Your task to perform on an android device: toggle wifi Image 0: 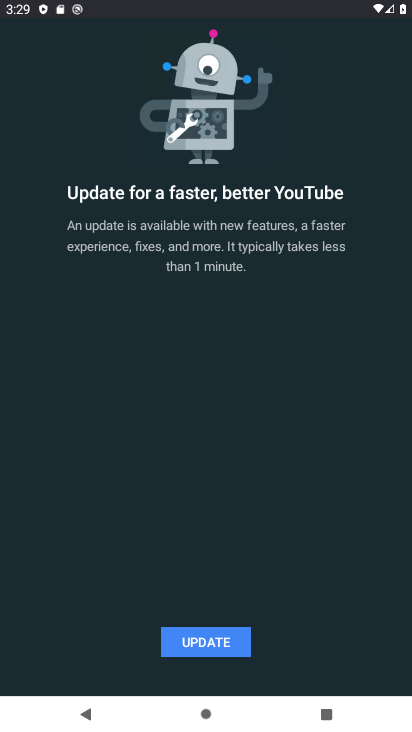
Step 0: press back button
Your task to perform on an android device: toggle wifi Image 1: 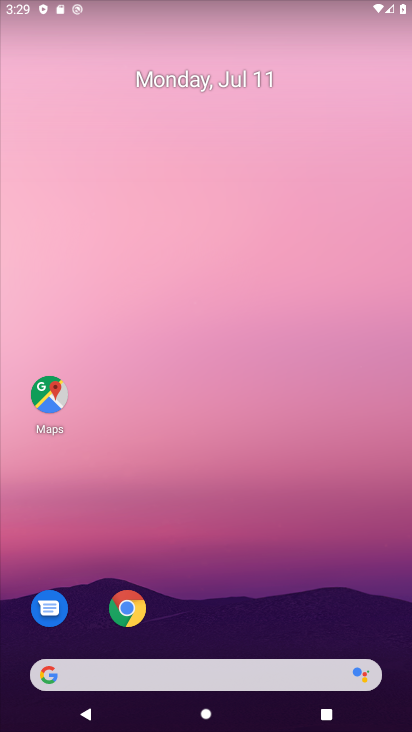
Step 1: drag from (218, 646) to (232, 6)
Your task to perform on an android device: toggle wifi Image 2: 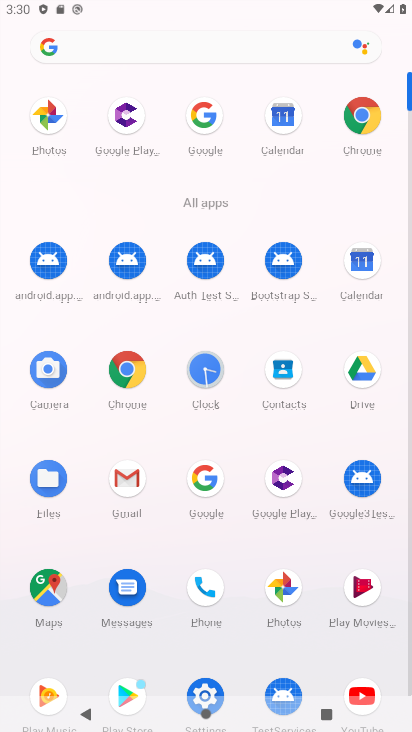
Step 2: click (202, 682)
Your task to perform on an android device: toggle wifi Image 3: 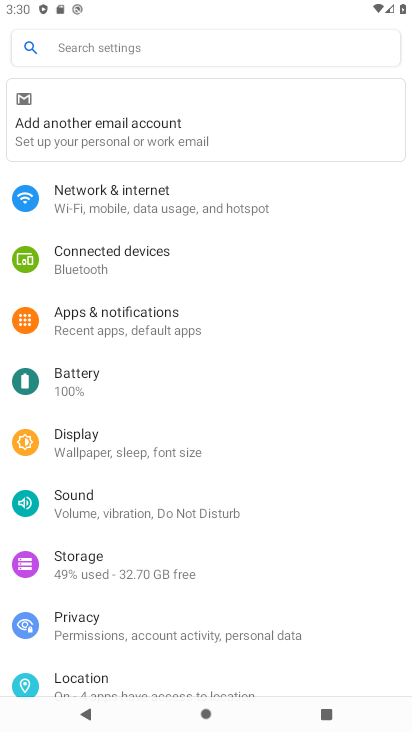
Step 3: click (144, 215)
Your task to perform on an android device: toggle wifi Image 4: 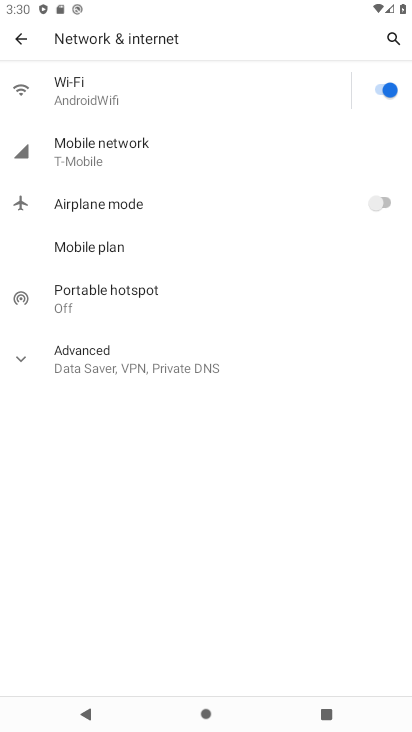
Step 4: click (388, 89)
Your task to perform on an android device: toggle wifi Image 5: 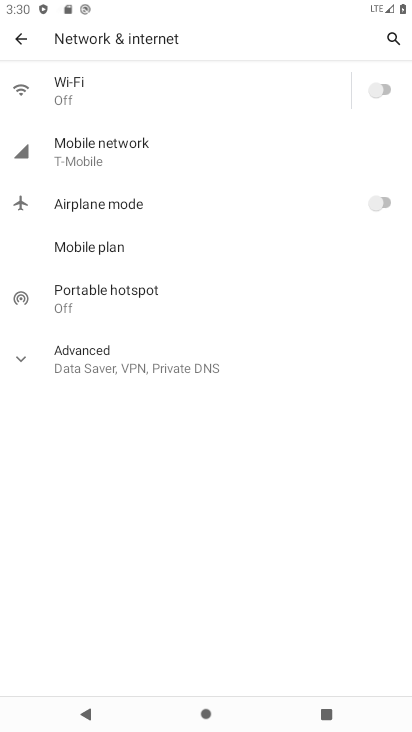
Step 5: task complete